Your task to perform on an android device: see tabs open on other devices in the chrome app Image 0: 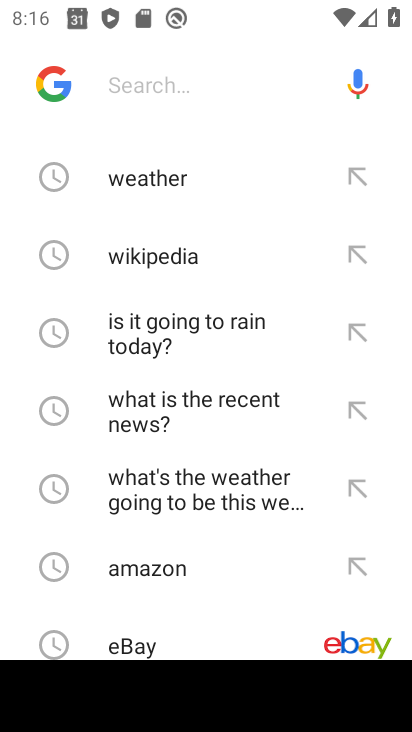
Step 0: press home button
Your task to perform on an android device: see tabs open on other devices in the chrome app Image 1: 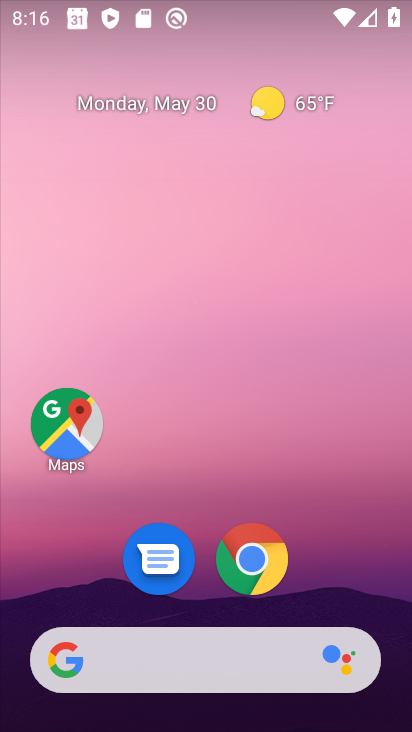
Step 1: drag from (240, 570) to (315, 571)
Your task to perform on an android device: see tabs open on other devices in the chrome app Image 2: 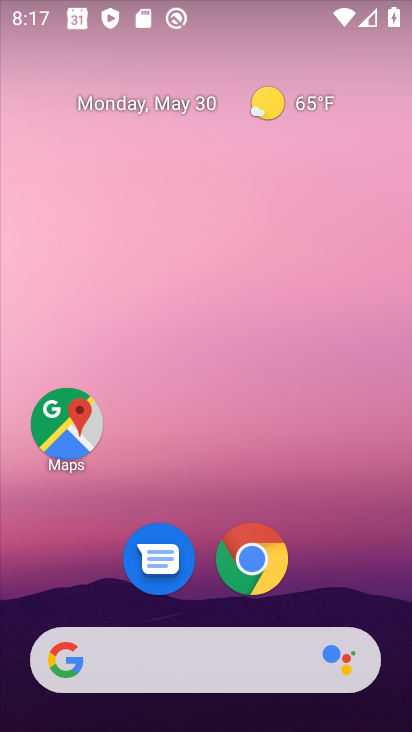
Step 2: click (246, 554)
Your task to perform on an android device: see tabs open on other devices in the chrome app Image 3: 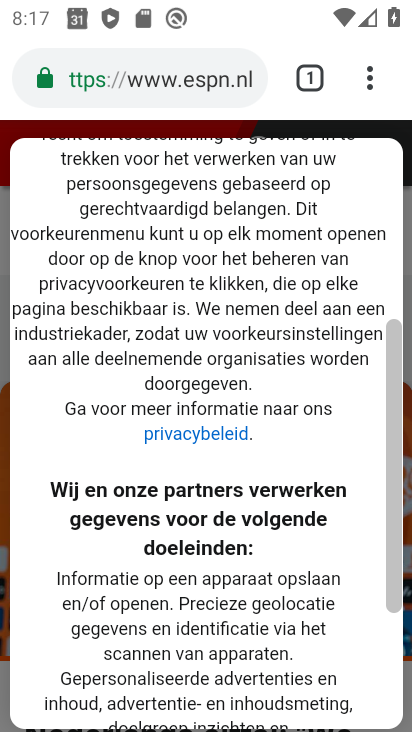
Step 3: task complete